Your task to perform on an android device: turn on bluetooth scan Image 0: 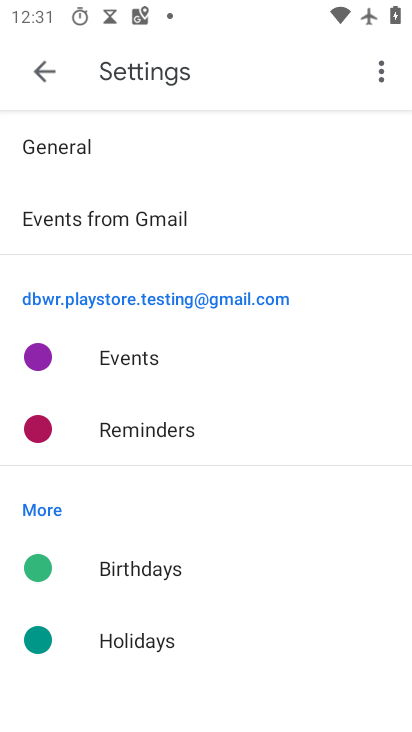
Step 0: press home button
Your task to perform on an android device: turn on bluetooth scan Image 1: 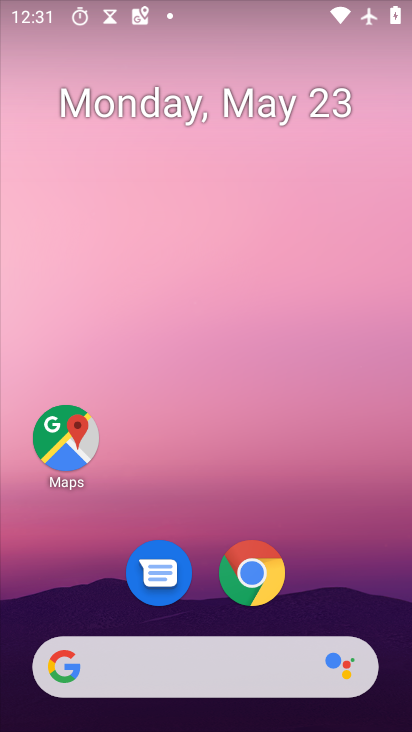
Step 1: drag from (220, 636) to (264, 174)
Your task to perform on an android device: turn on bluetooth scan Image 2: 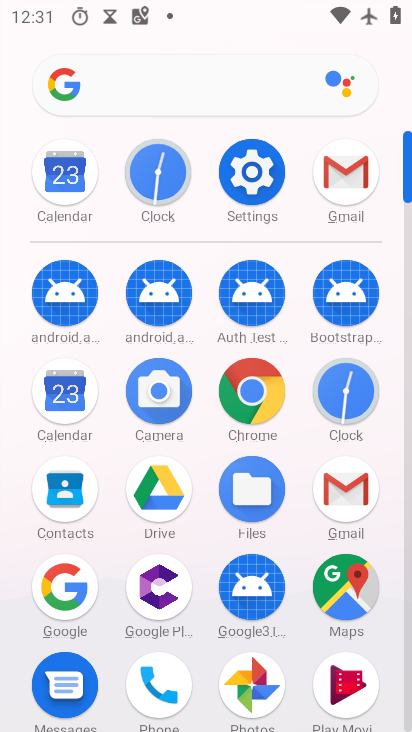
Step 2: click (252, 166)
Your task to perform on an android device: turn on bluetooth scan Image 3: 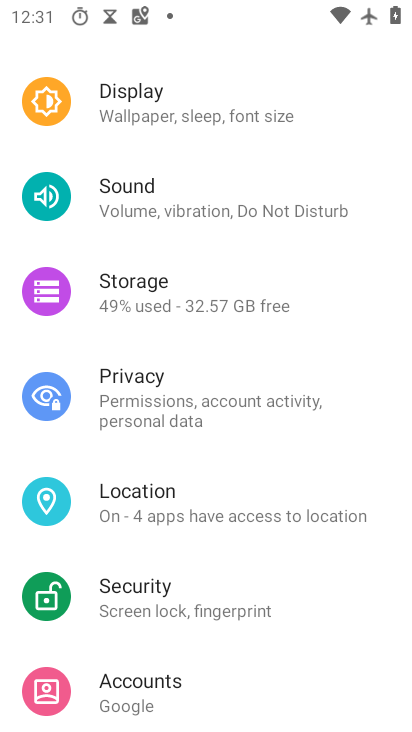
Step 3: click (146, 489)
Your task to perform on an android device: turn on bluetooth scan Image 4: 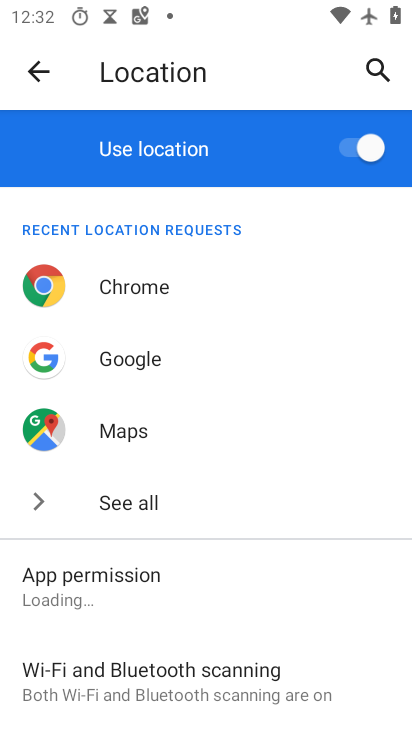
Step 4: drag from (185, 561) to (278, 194)
Your task to perform on an android device: turn on bluetooth scan Image 5: 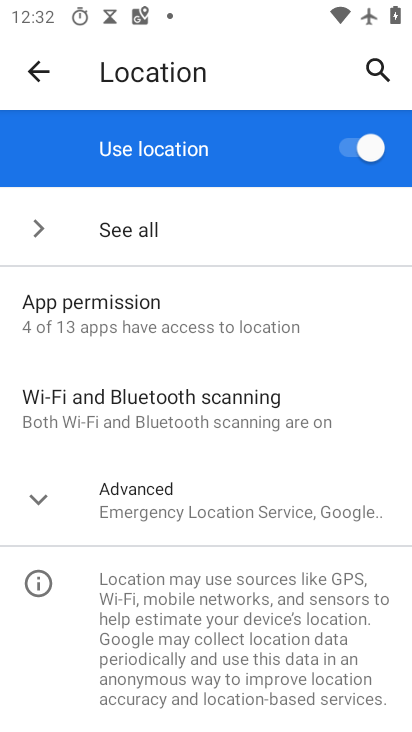
Step 5: click (210, 410)
Your task to perform on an android device: turn on bluetooth scan Image 6: 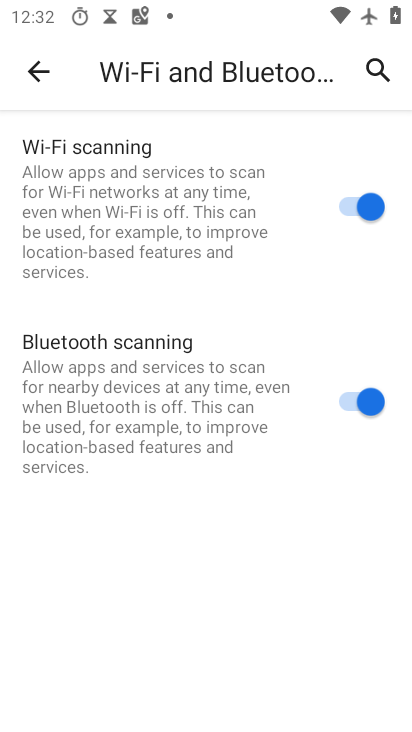
Step 6: task complete